Your task to perform on an android device: turn notification dots on Image 0: 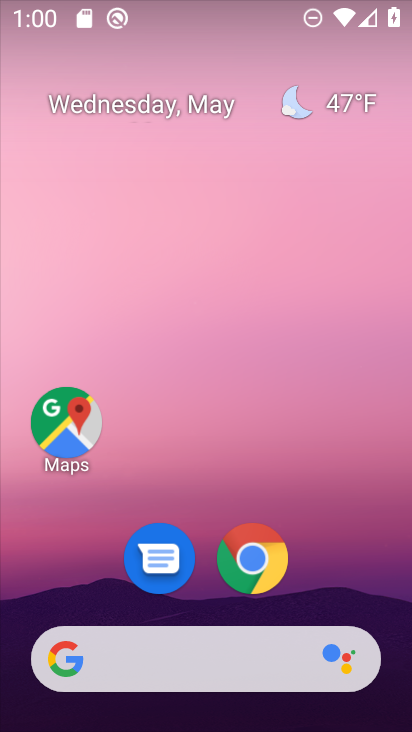
Step 0: drag from (202, 604) to (239, 6)
Your task to perform on an android device: turn notification dots on Image 1: 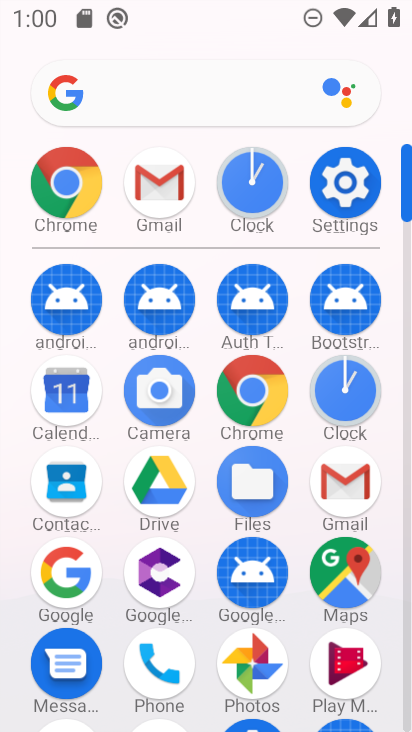
Step 1: click (343, 176)
Your task to perform on an android device: turn notification dots on Image 2: 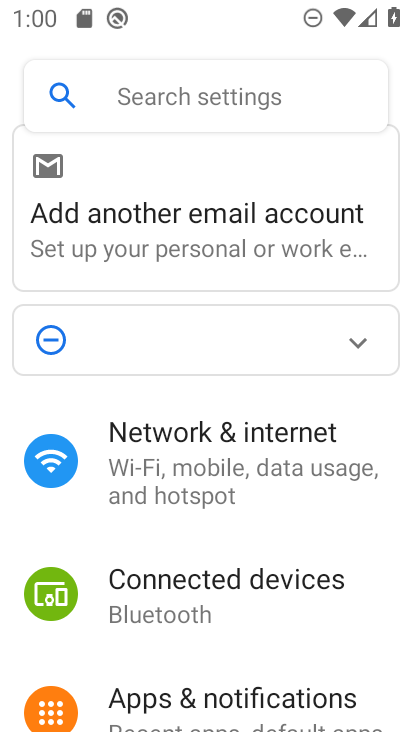
Step 2: click (235, 481)
Your task to perform on an android device: turn notification dots on Image 3: 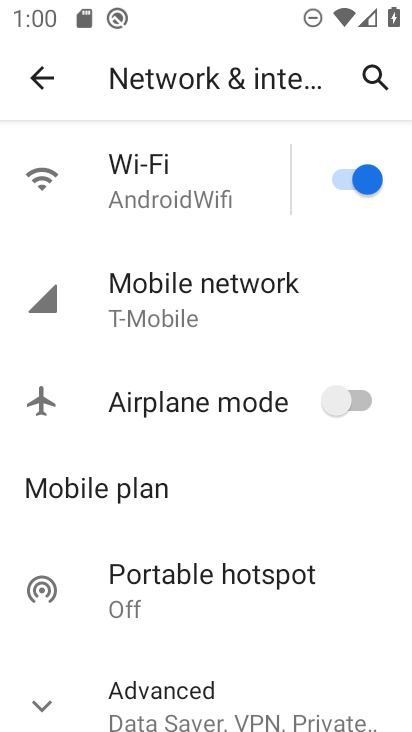
Step 3: click (23, 72)
Your task to perform on an android device: turn notification dots on Image 4: 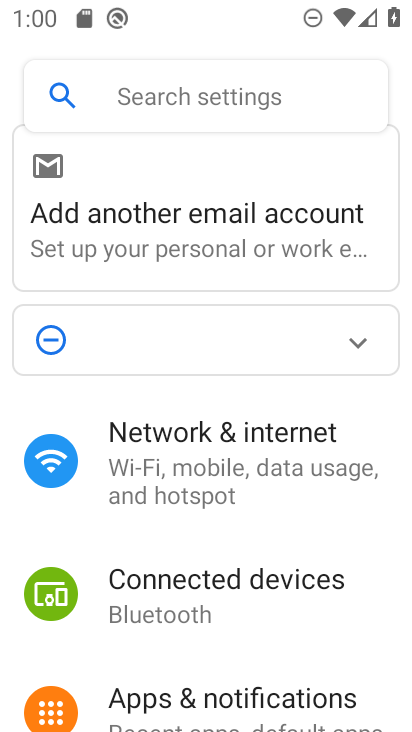
Step 4: click (264, 702)
Your task to perform on an android device: turn notification dots on Image 5: 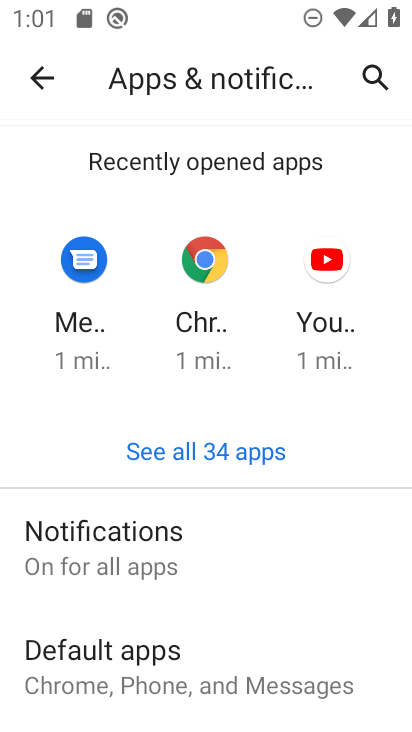
Step 5: drag from (159, 626) to (159, 357)
Your task to perform on an android device: turn notification dots on Image 6: 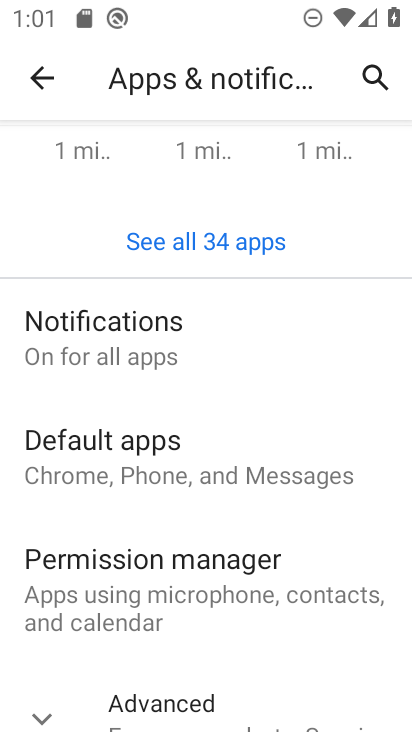
Step 6: click (132, 361)
Your task to perform on an android device: turn notification dots on Image 7: 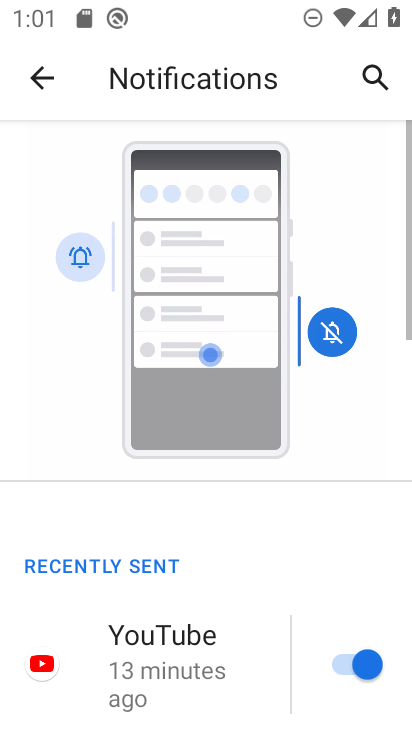
Step 7: drag from (195, 490) to (211, 108)
Your task to perform on an android device: turn notification dots on Image 8: 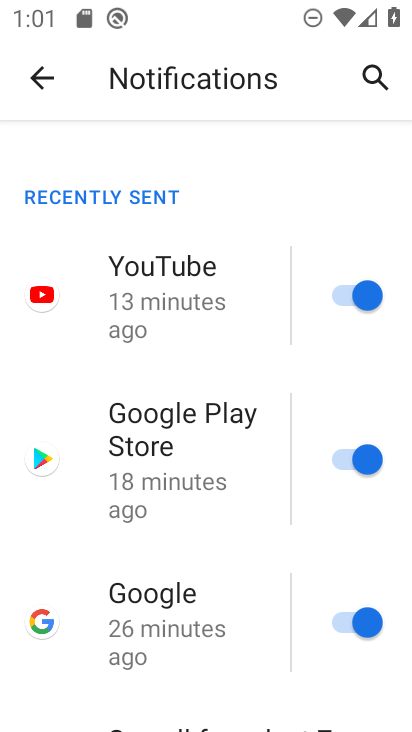
Step 8: drag from (166, 519) to (232, 34)
Your task to perform on an android device: turn notification dots on Image 9: 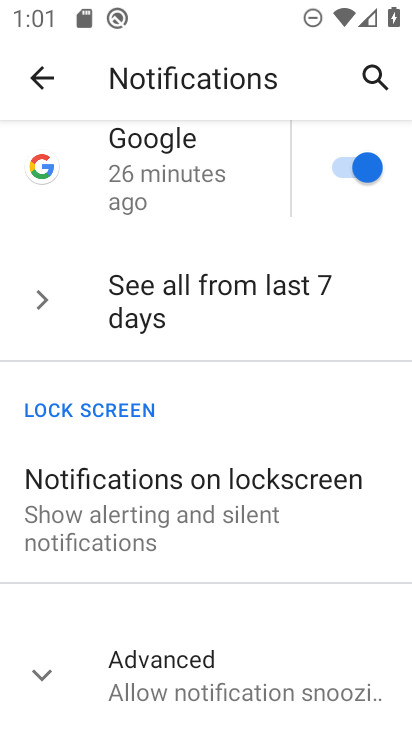
Step 9: click (190, 670)
Your task to perform on an android device: turn notification dots on Image 10: 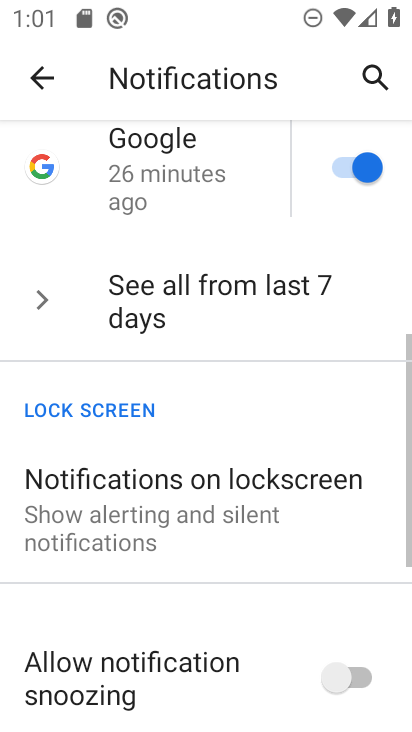
Step 10: drag from (166, 659) to (185, 239)
Your task to perform on an android device: turn notification dots on Image 11: 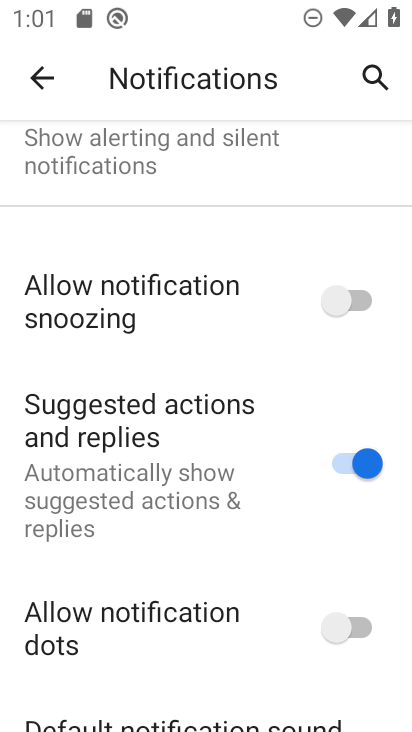
Step 11: click (370, 630)
Your task to perform on an android device: turn notification dots on Image 12: 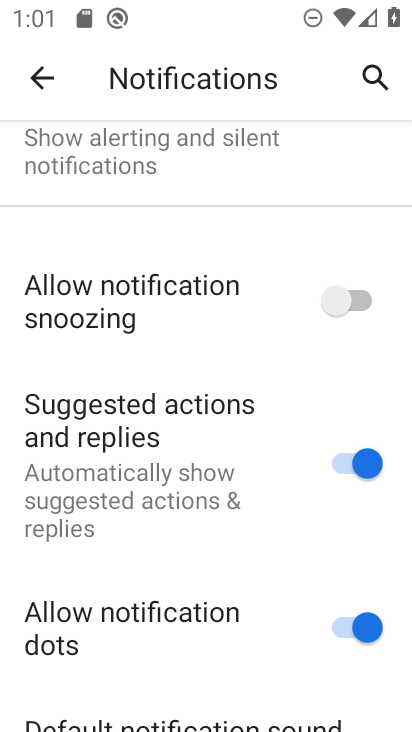
Step 12: task complete